Your task to perform on an android device: What's on my calendar tomorrow? Image 0: 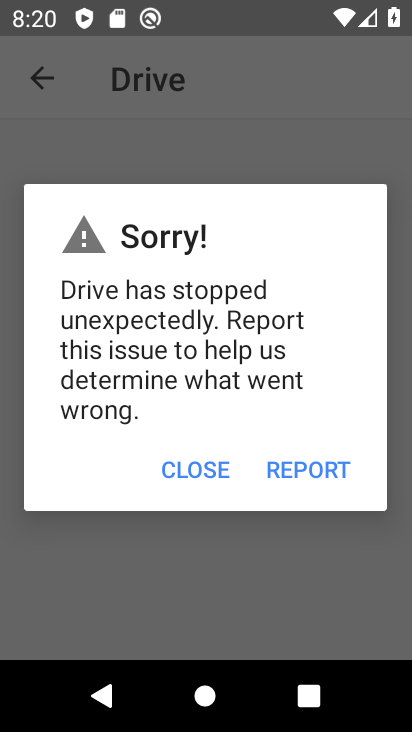
Step 0: press back button
Your task to perform on an android device: What's on my calendar tomorrow? Image 1: 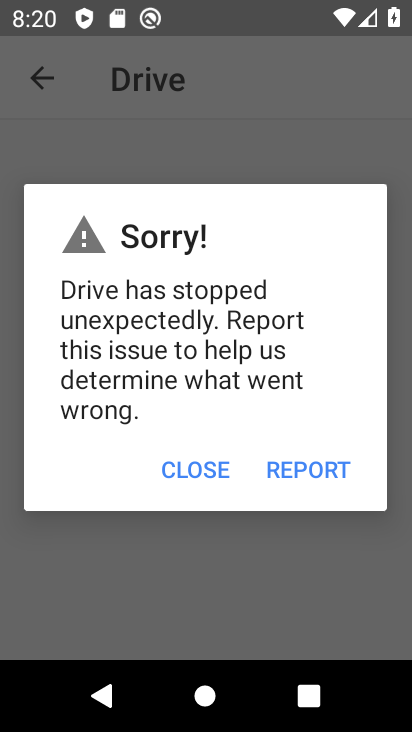
Step 1: press home button
Your task to perform on an android device: What's on my calendar tomorrow? Image 2: 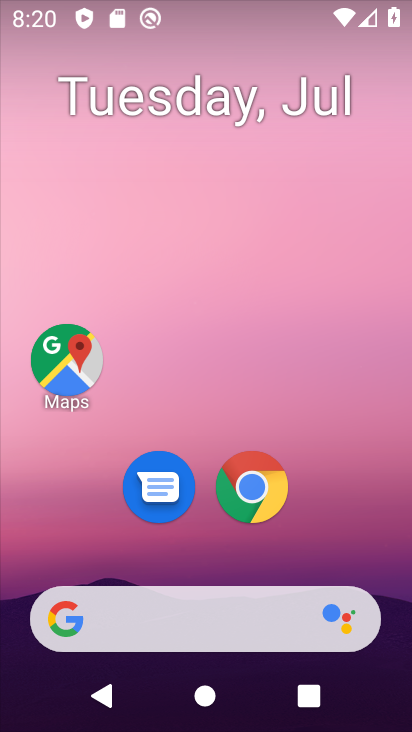
Step 2: drag from (113, 549) to (240, 15)
Your task to perform on an android device: What's on my calendar tomorrow? Image 3: 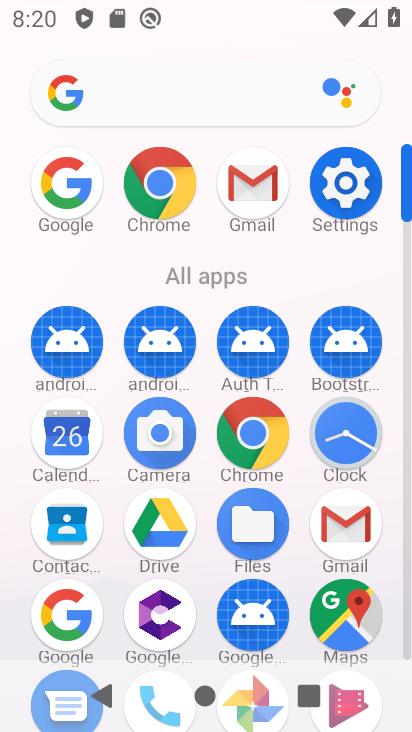
Step 3: click (72, 440)
Your task to perform on an android device: What's on my calendar tomorrow? Image 4: 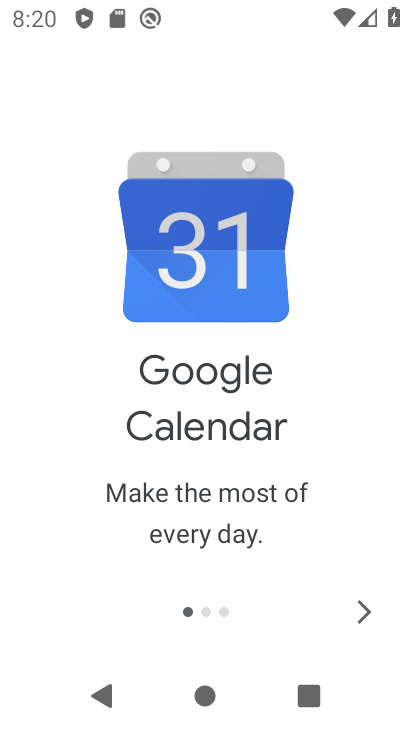
Step 4: click (365, 600)
Your task to perform on an android device: What's on my calendar tomorrow? Image 5: 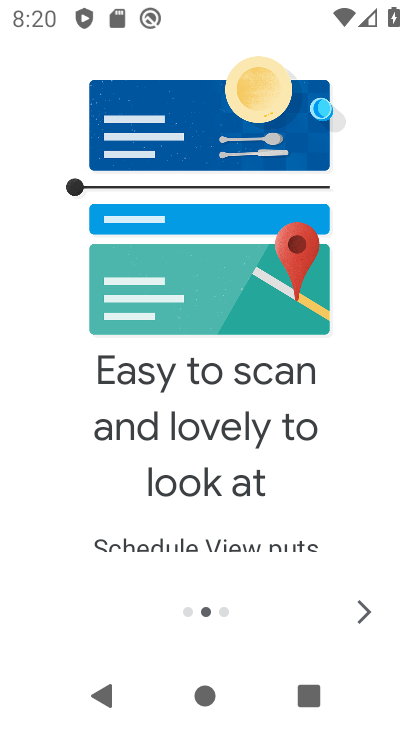
Step 5: click (365, 600)
Your task to perform on an android device: What's on my calendar tomorrow? Image 6: 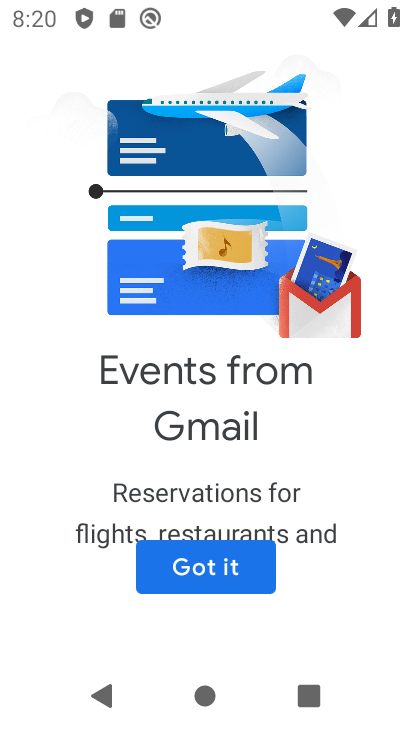
Step 6: click (36, 582)
Your task to perform on an android device: What's on my calendar tomorrow? Image 7: 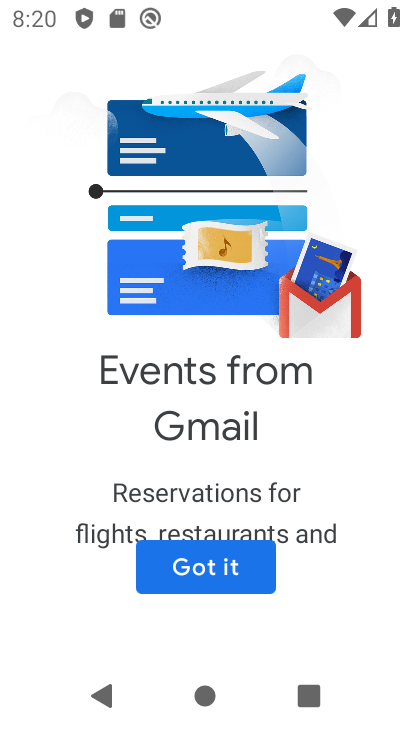
Step 7: click (156, 572)
Your task to perform on an android device: What's on my calendar tomorrow? Image 8: 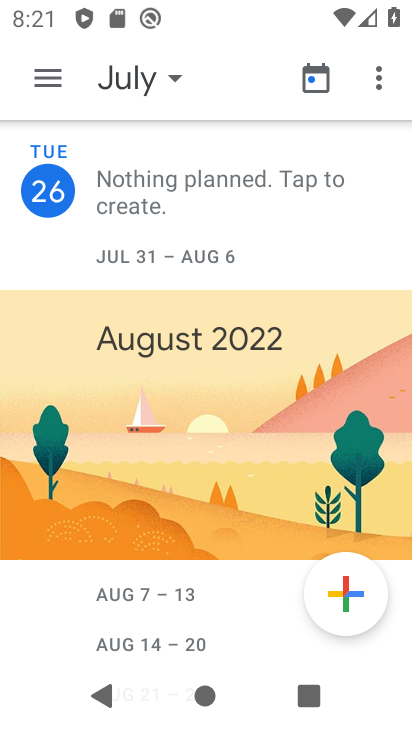
Step 8: click (168, 78)
Your task to perform on an android device: What's on my calendar tomorrow? Image 9: 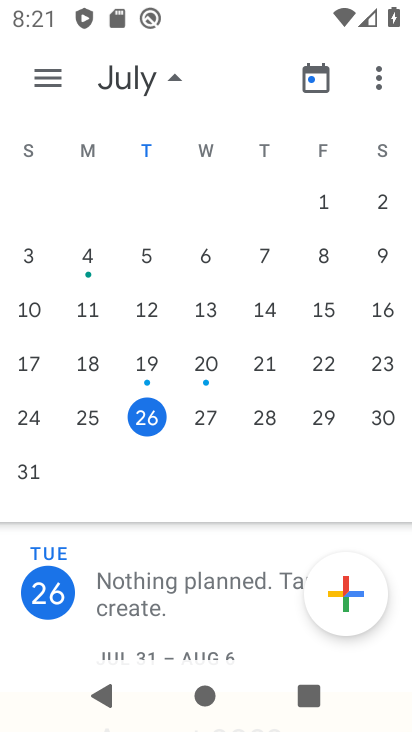
Step 9: click (212, 415)
Your task to perform on an android device: What's on my calendar tomorrow? Image 10: 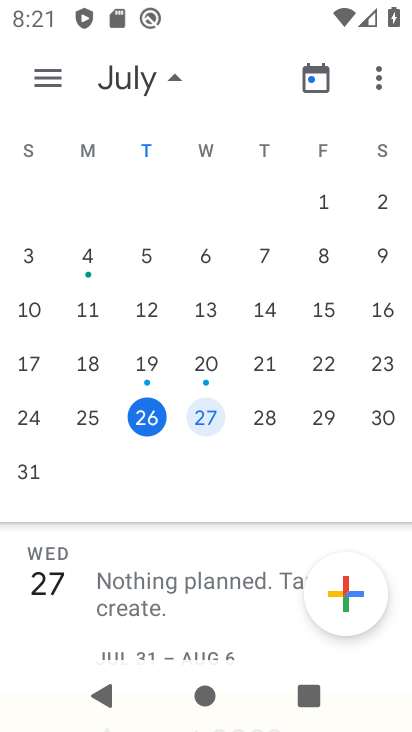
Step 10: task complete